Your task to perform on an android device: turn on notifications settings in the gmail app Image 0: 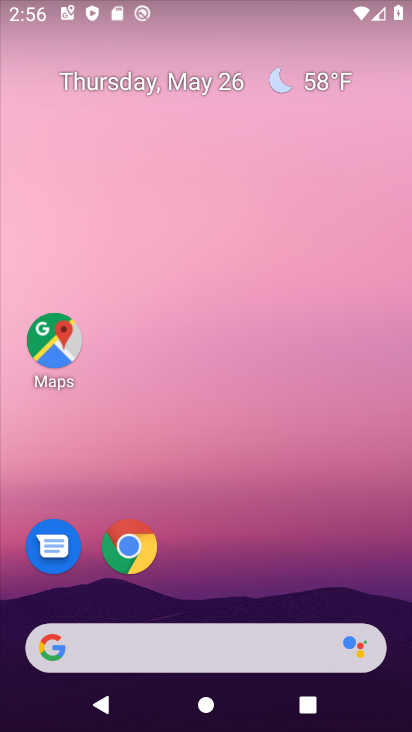
Step 0: press home button
Your task to perform on an android device: turn on notifications settings in the gmail app Image 1: 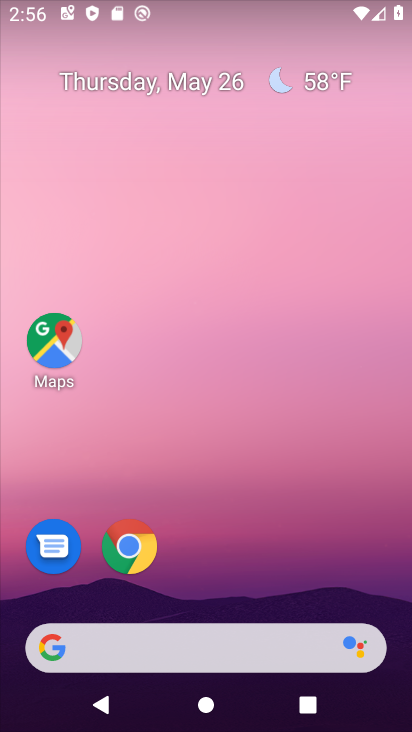
Step 1: drag from (219, 556) to (194, 148)
Your task to perform on an android device: turn on notifications settings in the gmail app Image 2: 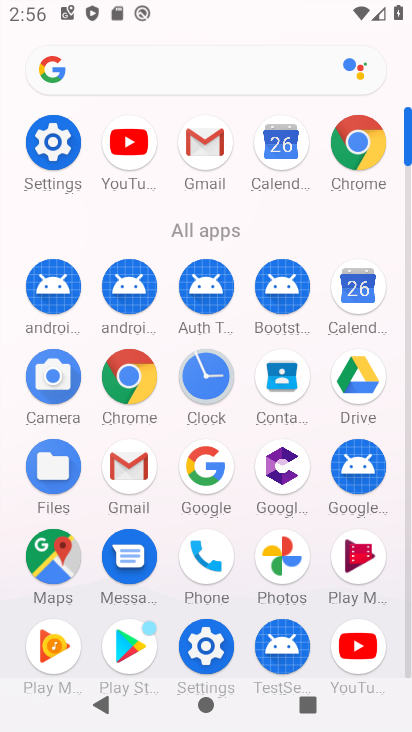
Step 2: click (198, 135)
Your task to perform on an android device: turn on notifications settings in the gmail app Image 3: 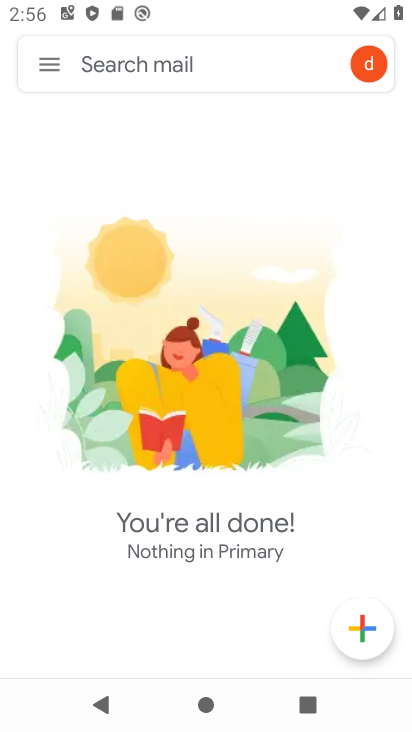
Step 3: click (49, 64)
Your task to perform on an android device: turn on notifications settings in the gmail app Image 4: 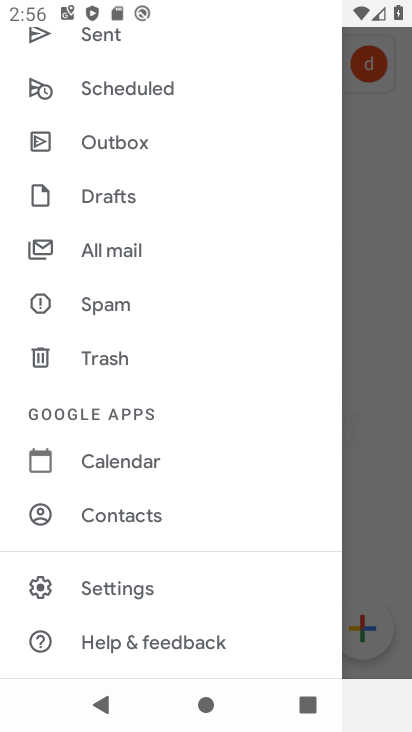
Step 4: click (170, 581)
Your task to perform on an android device: turn on notifications settings in the gmail app Image 5: 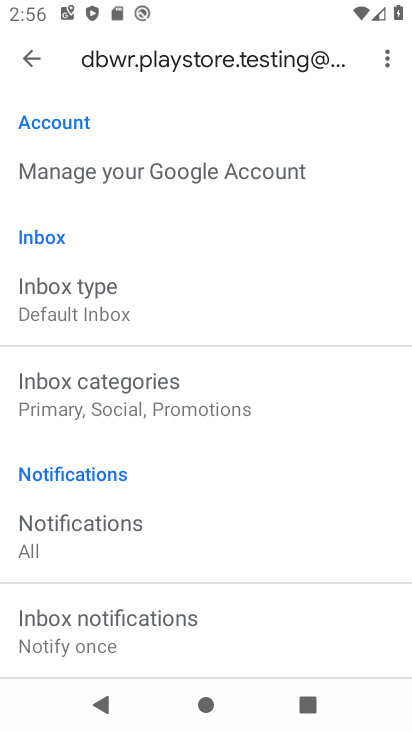
Step 5: click (180, 280)
Your task to perform on an android device: turn on notifications settings in the gmail app Image 6: 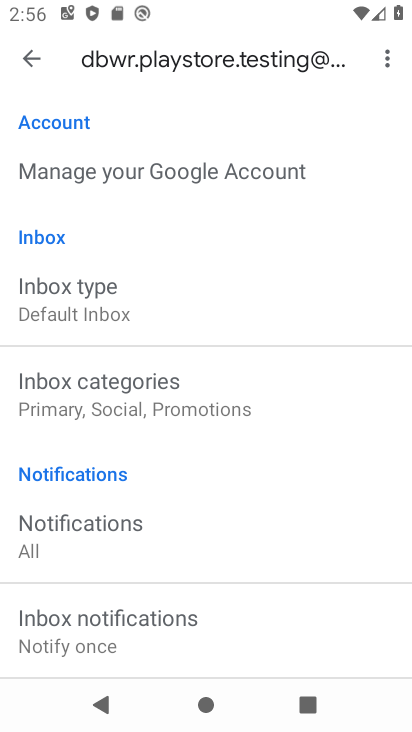
Step 6: drag from (180, 280) to (197, 520)
Your task to perform on an android device: turn on notifications settings in the gmail app Image 7: 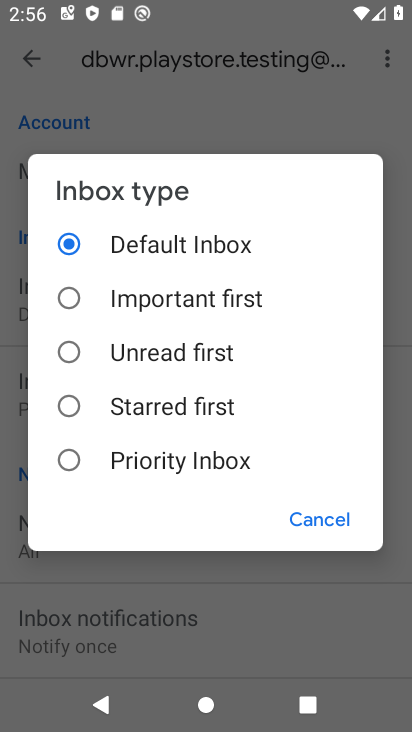
Step 7: click (312, 530)
Your task to perform on an android device: turn on notifications settings in the gmail app Image 8: 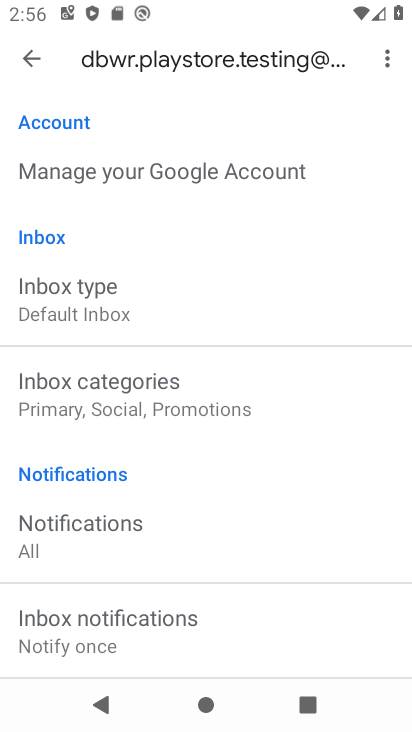
Step 8: click (40, 55)
Your task to perform on an android device: turn on notifications settings in the gmail app Image 9: 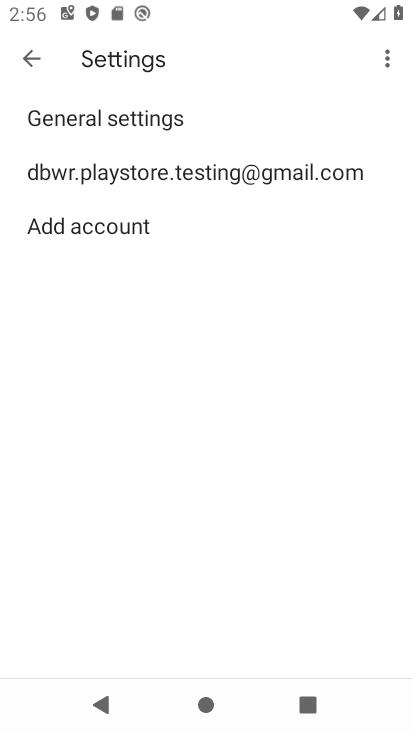
Step 9: click (115, 117)
Your task to perform on an android device: turn on notifications settings in the gmail app Image 10: 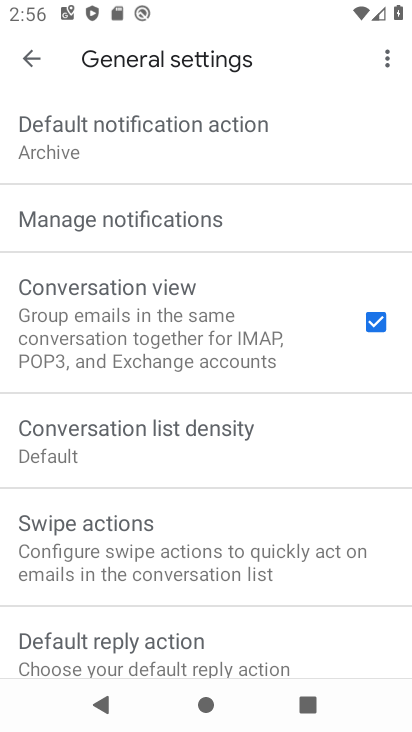
Step 10: click (176, 228)
Your task to perform on an android device: turn on notifications settings in the gmail app Image 11: 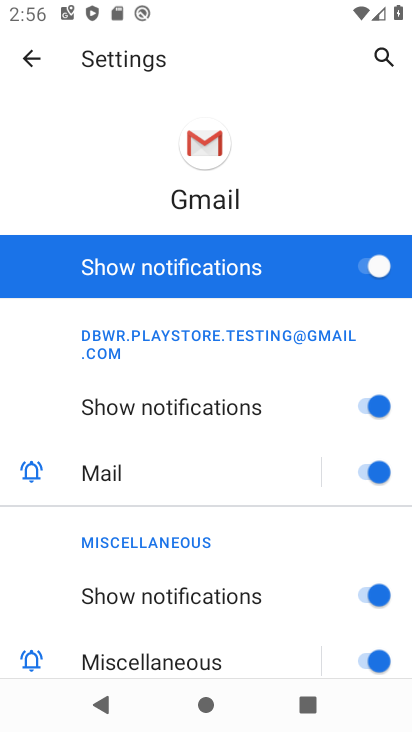
Step 11: task complete